Your task to perform on an android device: open app "Spotify: Music and Podcasts" (install if not already installed) and enter user name: "principled@inbox.com" and password: "arrests" Image 0: 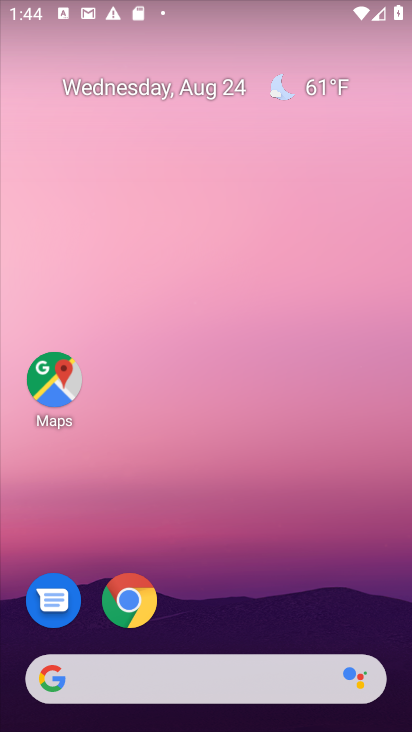
Step 0: drag from (275, 630) to (302, 75)
Your task to perform on an android device: open app "Spotify: Music and Podcasts" (install if not already installed) and enter user name: "principled@inbox.com" and password: "arrests" Image 1: 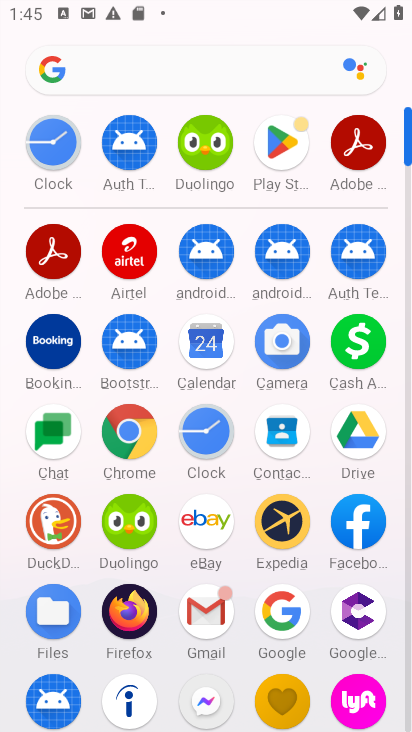
Step 1: click (294, 126)
Your task to perform on an android device: open app "Spotify: Music and Podcasts" (install if not already installed) and enter user name: "principled@inbox.com" and password: "arrests" Image 2: 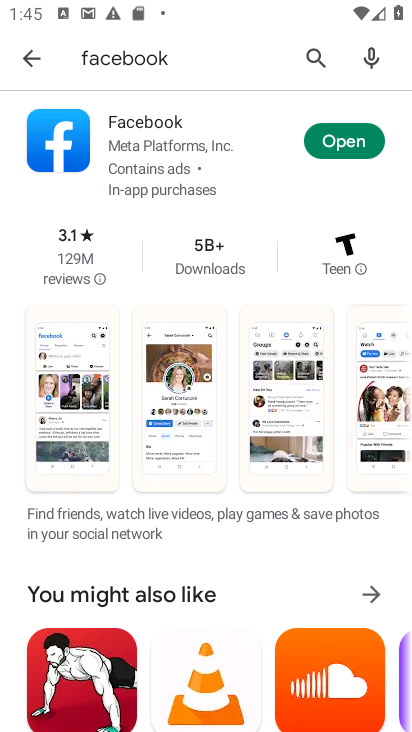
Step 2: click (328, 67)
Your task to perform on an android device: open app "Spotify: Music and Podcasts" (install if not already installed) and enter user name: "principled@inbox.com" and password: "arrests" Image 3: 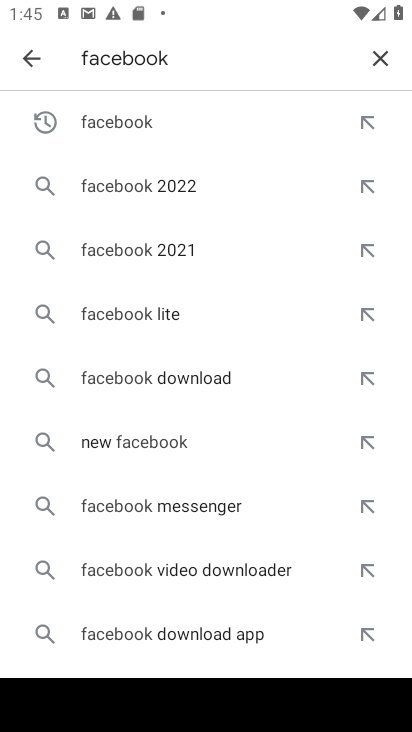
Step 3: click (384, 65)
Your task to perform on an android device: open app "Spotify: Music and Podcasts" (install if not already installed) and enter user name: "principled@inbox.com" and password: "arrests" Image 4: 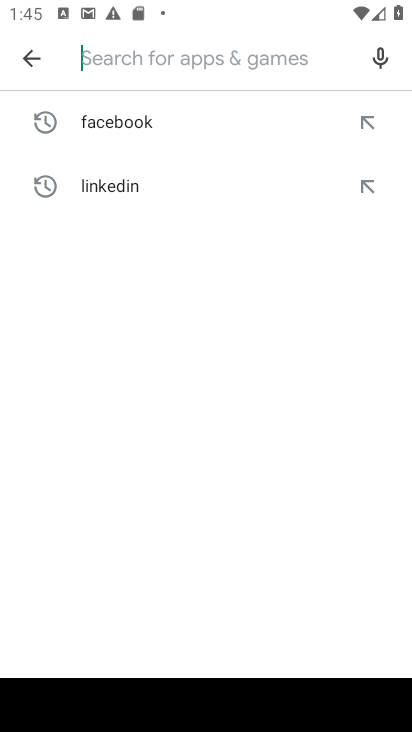
Step 4: type "spotify"
Your task to perform on an android device: open app "Spotify: Music and Podcasts" (install if not already installed) and enter user name: "principled@inbox.com" and password: "arrests" Image 5: 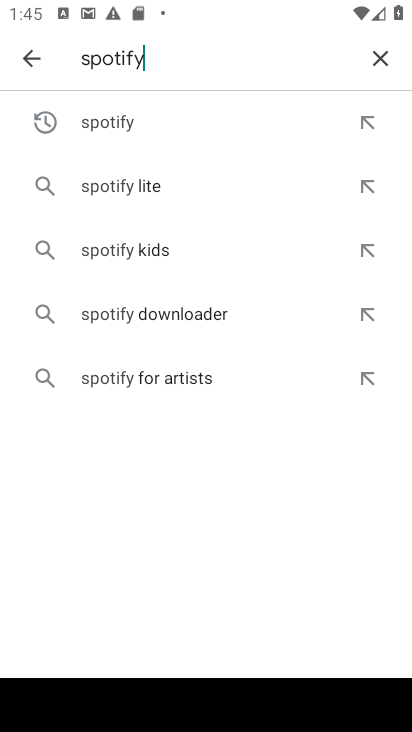
Step 5: click (226, 122)
Your task to perform on an android device: open app "Spotify: Music and Podcasts" (install if not already installed) and enter user name: "principled@inbox.com" and password: "arrests" Image 6: 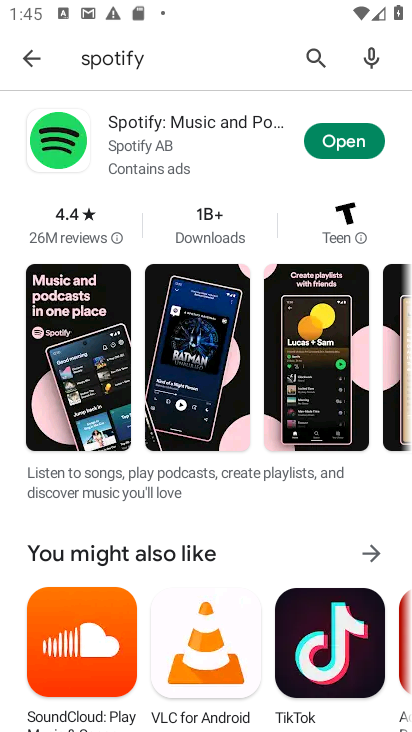
Step 6: click (344, 145)
Your task to perform on an android device: open app "Spotify: Music and Podcasts" (install if not already installed) and enter user name: "principled@inbox.com" and password: "arrests" Image 7: 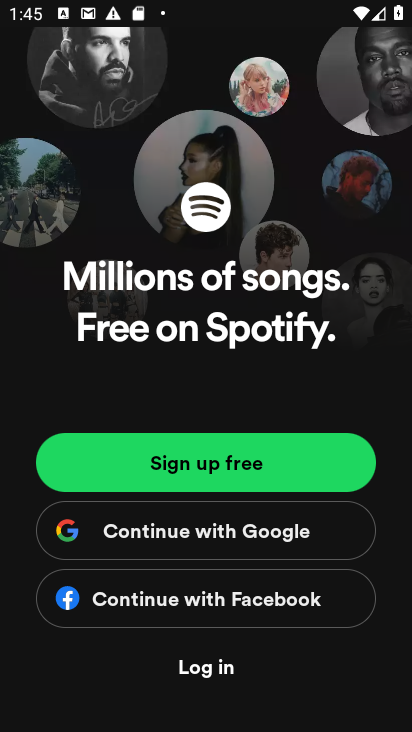
Step 7: click (228, 677)
Your task to perform on an android device: open app "Spotify: Music and Podcasts" (install if not already installed) and enter user name: "principled@inbox.com" and password: "arrests" Image 8: 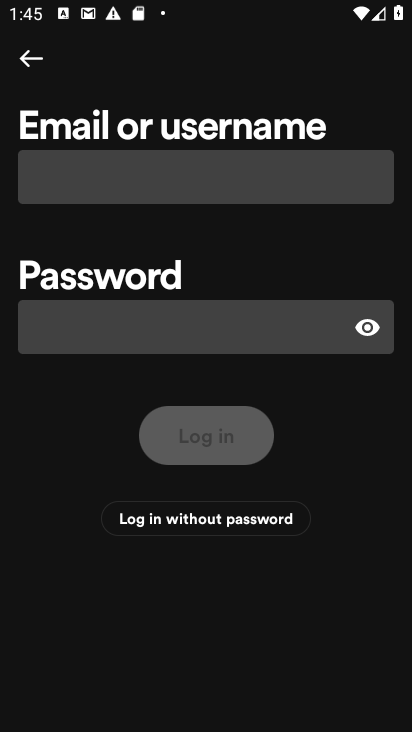
Step 8: click (266, 183)
Your task to perform on an android device: open app "Spotify: Music and Podcasts" (install if not already installed) and enter user name: "principled@inbox.com" and password: "arrests" Image 9: 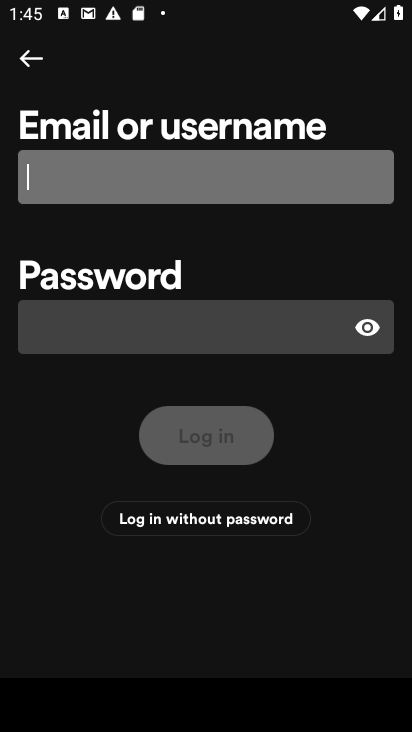
Step 9: type "principled@inbox.com"
Your task to perform on an android device: open app "Spotify: Music and Podcasts" (install if not already installed) and enter user name: "principled@inbox.com" and password: "arrests" Image 10: 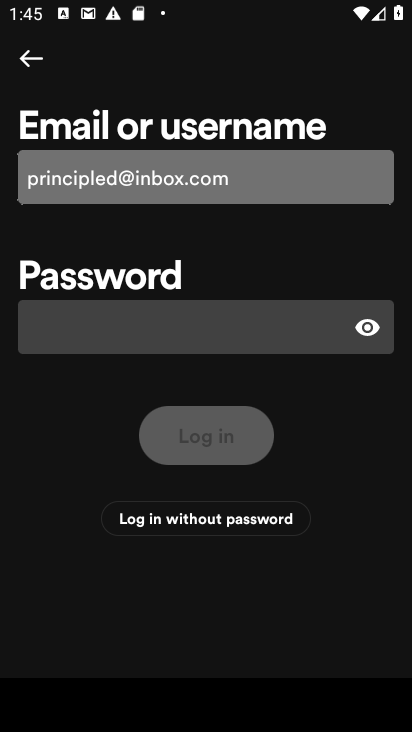
Step 10: click (172, 325)
Your task to perform on an android device: open app "Spotify: Music and Podcasts" (install if not already installed) and enter user name: "principled@inbox.com" and password: "arrests" Image 11: 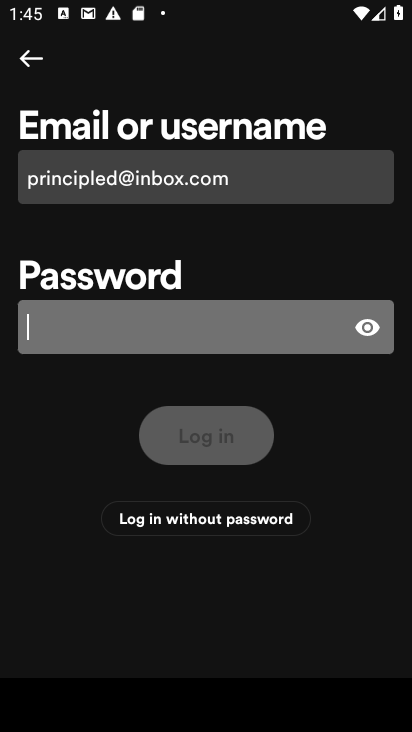
Step 11: type "arrests"
Your task to perform on an android device: open app "Spotify: Music and Podcasts" (install if not already installed) and enter user name: "principled@inbox.com" and password: "arrests" Image 12: 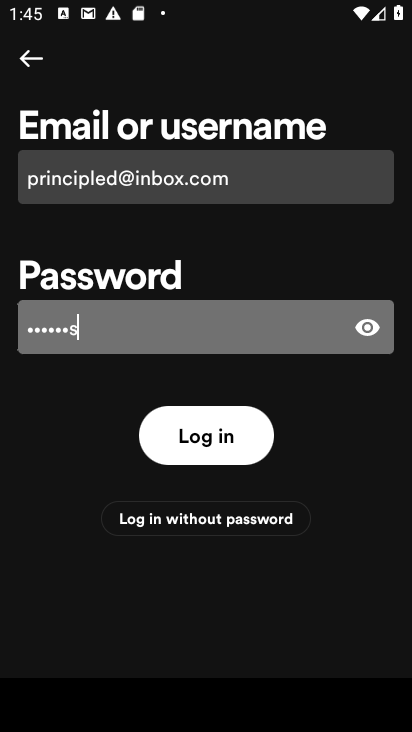
Step 12: click (192, 461)
Your task to perform on an android device: open app "Spotify: Music and Podcasts" (install if not already installed) and enter user name: "principled@inbox.com" and password: "arrests" Image 13: 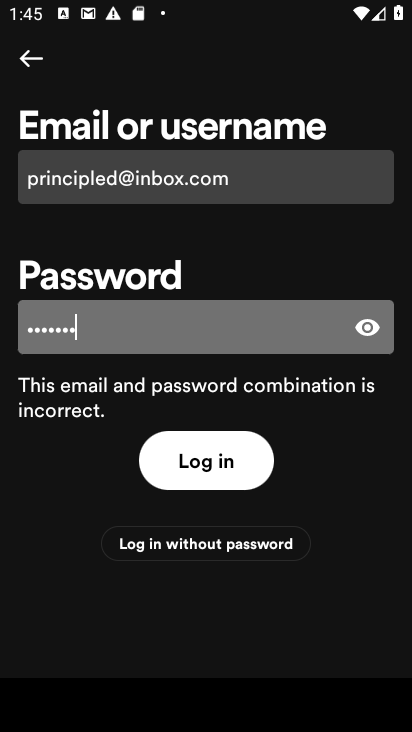
Step 13: click (206, 456)
Your task to perform on an android device: open app "Spotify: Music and Podcasts" (install if not already installed) and enter user name: "principled@inbox.com" and password: "arrests" Image 14: 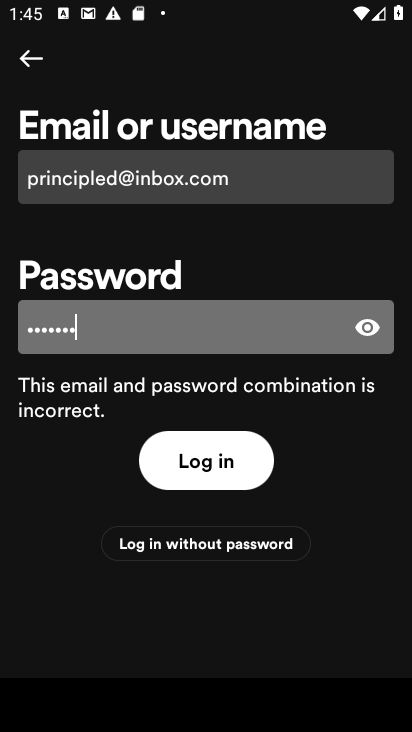
Step 14: task complete